Your task to perform on an android device: Go to Maps Image 0: 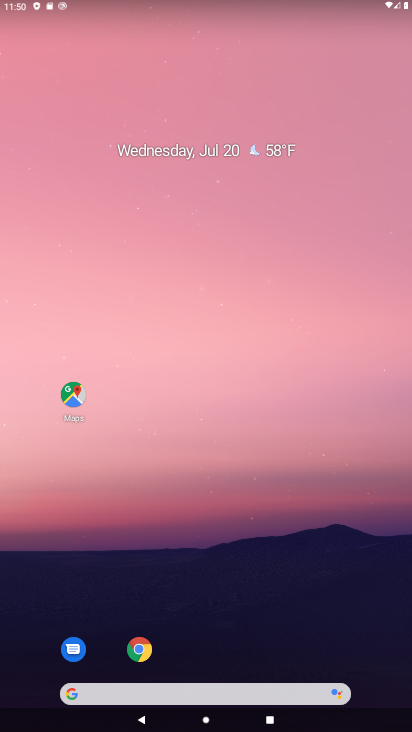
Step 0: click (82, 396)
Your task to perform on an android device: Go to Maps Image 1: 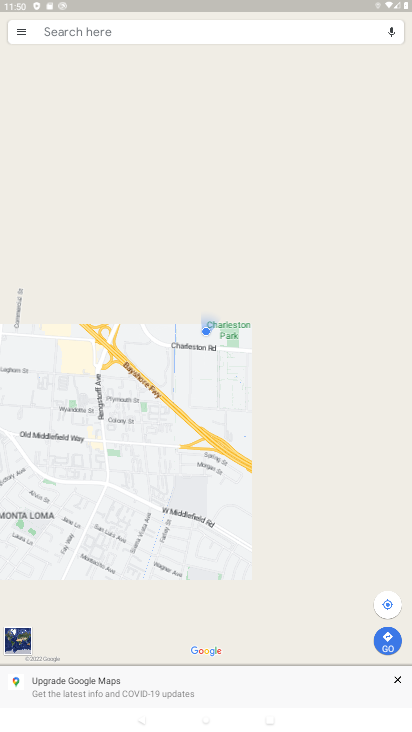
Step 1: task complete